Your task to perform on an android device: Open Google Maps Image 0: 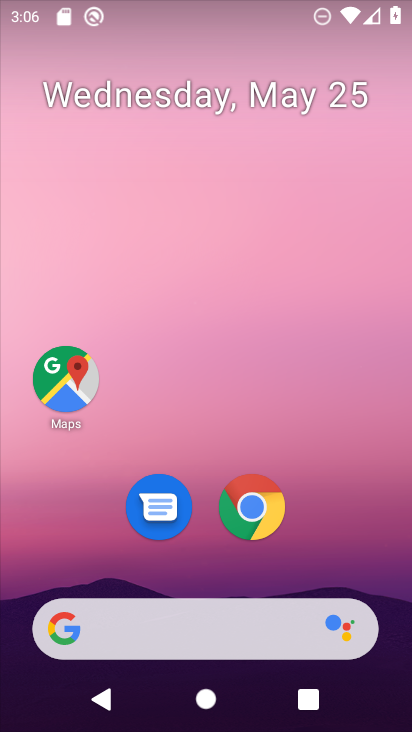
Step 0: drag from (189, 674) to (247, 216)
Your task to perform on an android device: Open Google Maps Image 1: 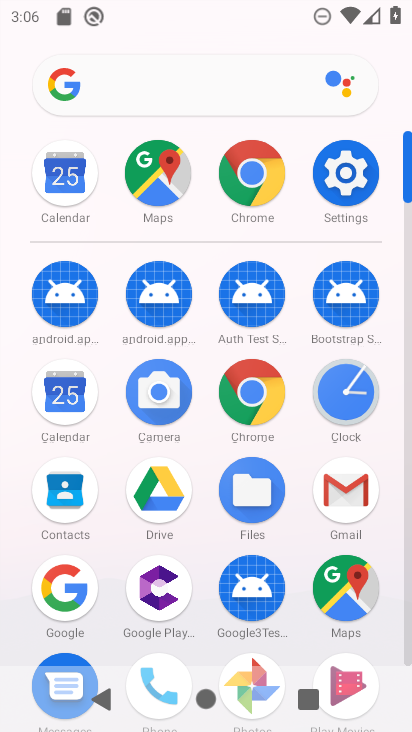
Step 1: click (355, 607)
Your task to perform on an android device: Open Google Maps Image 2: 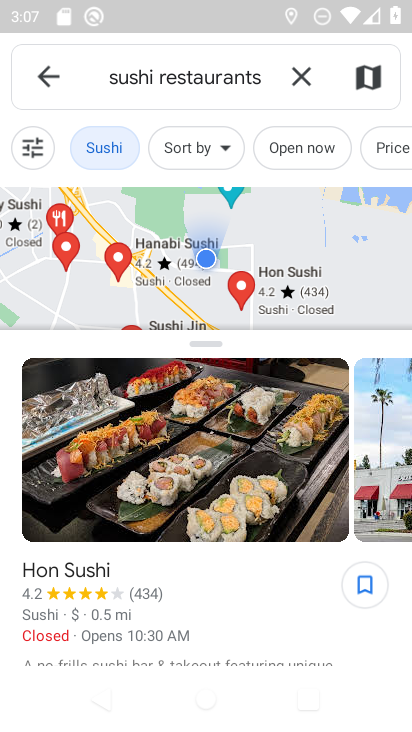
Step 2: task complete